Your task to perform on an android device: open app "Google Sheets" (install if not already installed) Image 0: 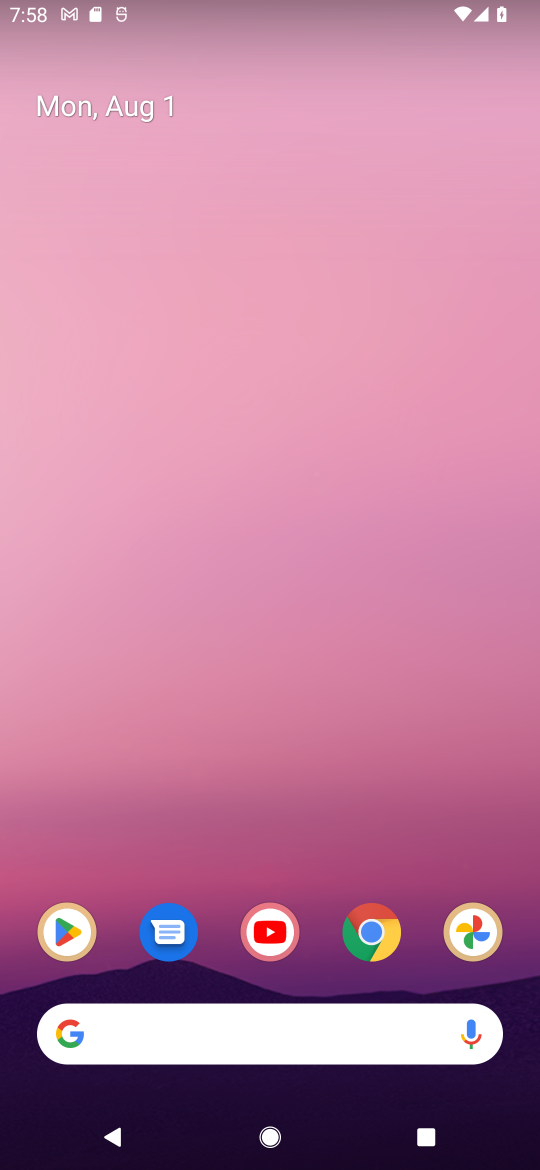
Step 0: click (45, 937)
Your task to perform on an android device: open app "Google Sheets" (install if not already installed) Image 1: 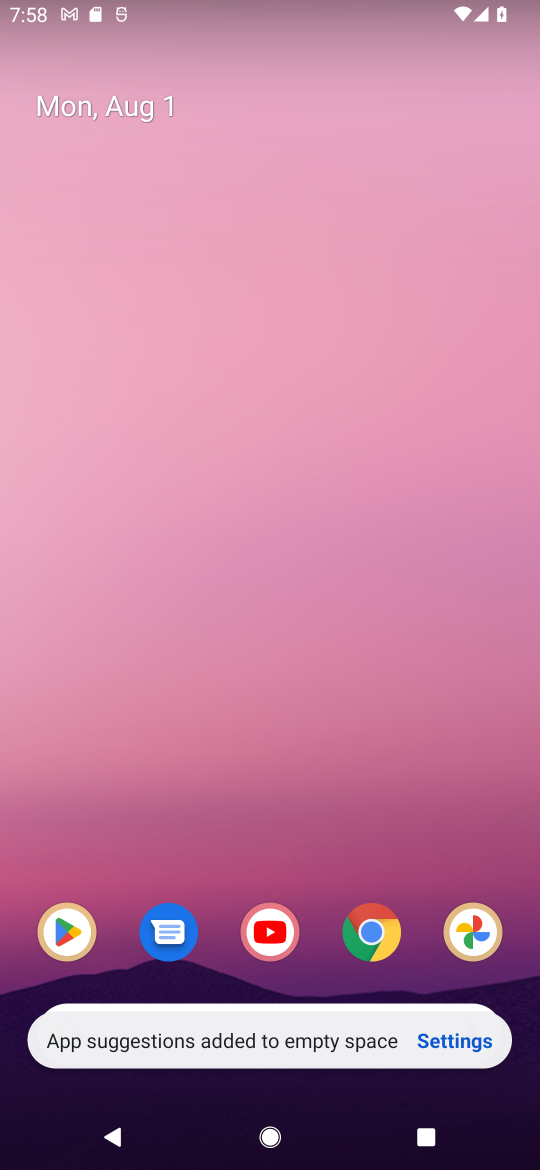
Step 1: click (78, 932)
Your task to perform on an android device: open app "Google Sheets" (install if not already installed) Image 2: 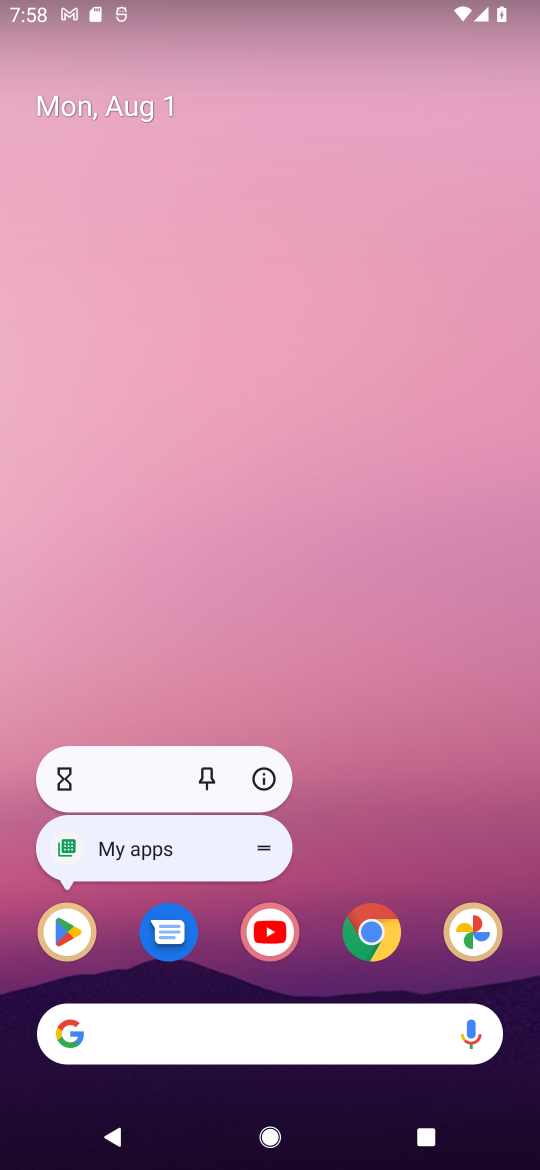
Step 2: click (93, 915)
Your task to perform on an android device: open app "Google Sheets" (install if not already installed) Image 3: 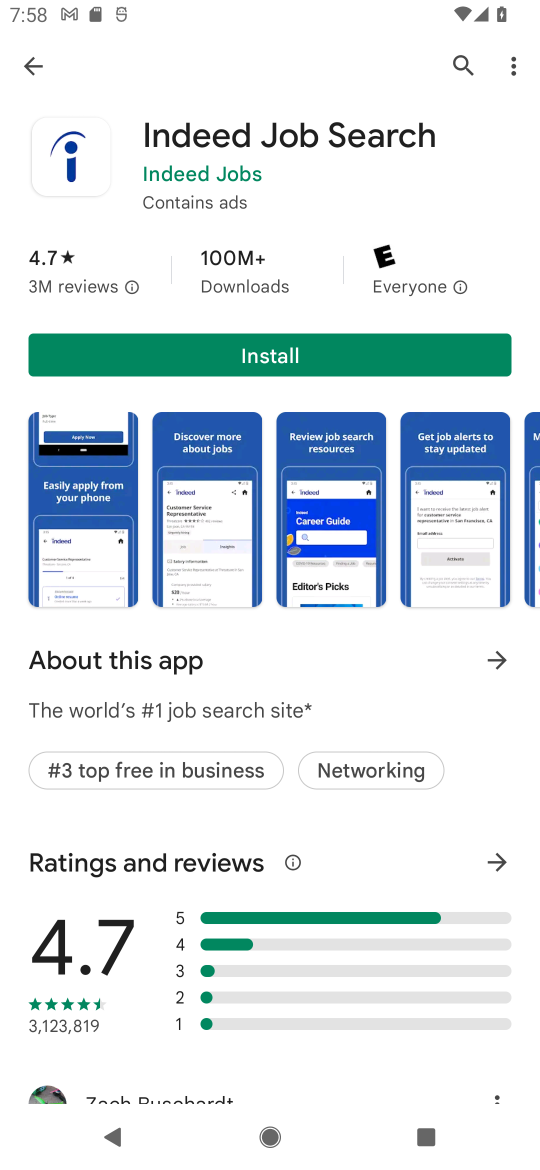
Step 3: click (41, 49)
Your task to perform on an android device: open app "Google Sheets" (install if not already installed) Image 4: 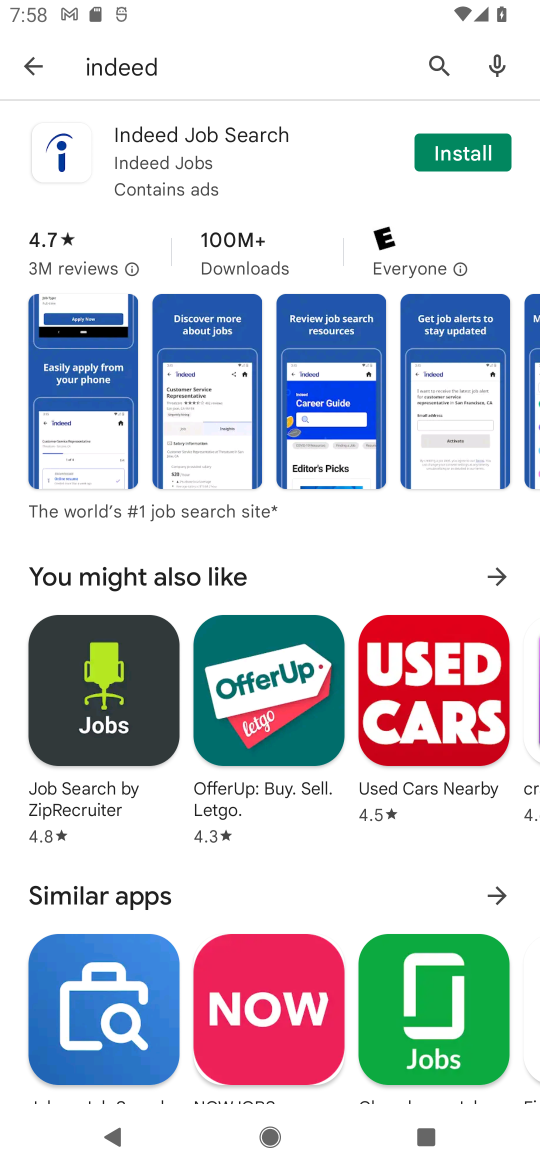
Step 4: click (112, 71)
Your task to perform on an android device: open app "Google Sheets" (install if not already installed) Image 5: 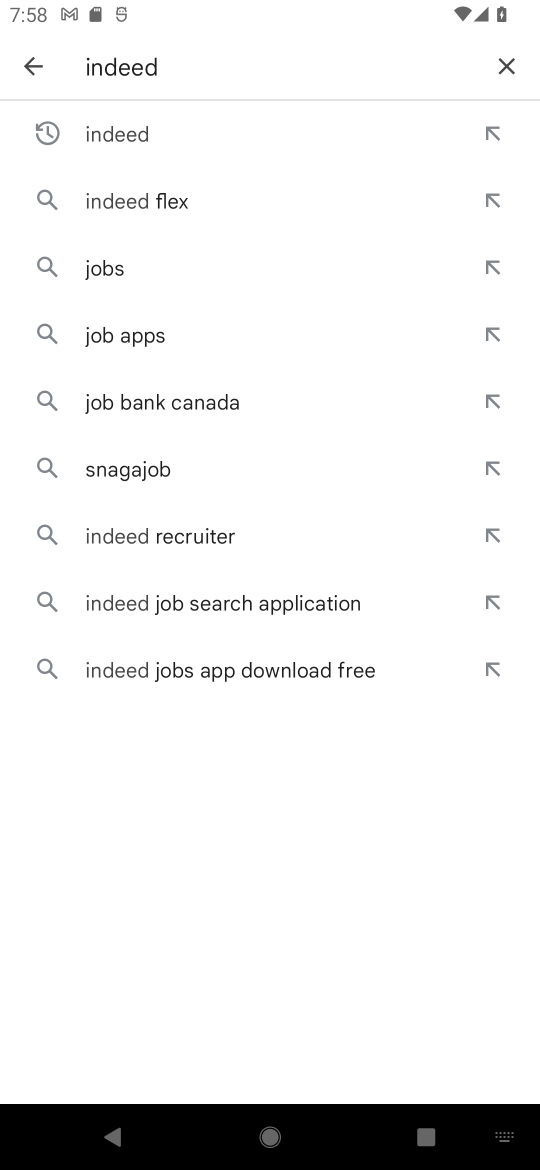
Step 5: click (509, 54)
Your task to perform on an android device: open app "Google Sheets" (install if not already installed) Image 6: 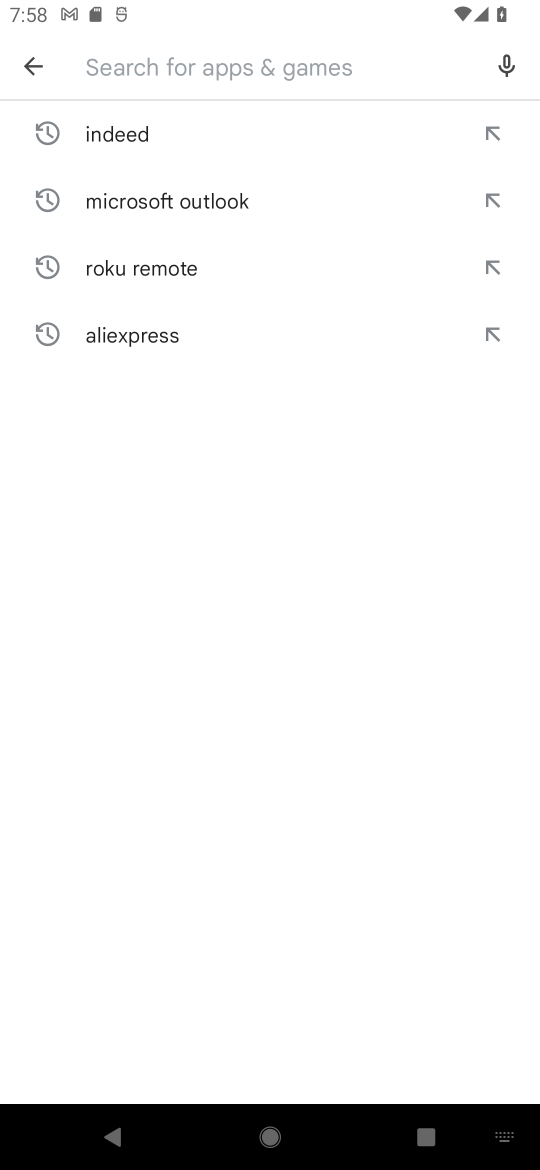
Step 6: type "google sheets"
Your task to perform on an android device: open app "Google Sheets" (install if not already installed) Image 7: 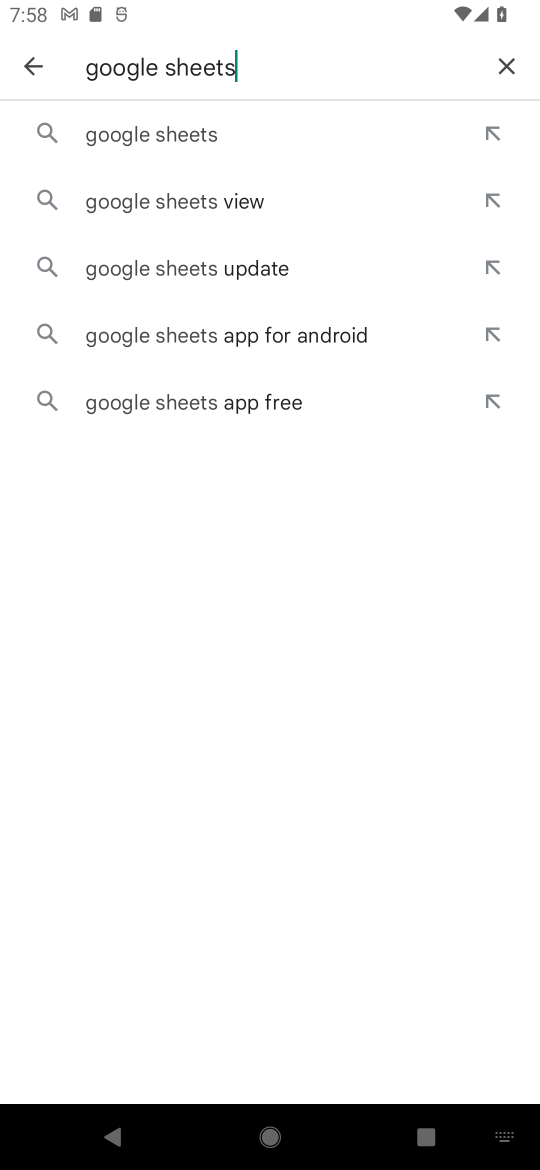
Step 7: click (172, 142)
Your task to perform on an android device: open app "Google Sheets" (install if not already installed) Image 8: 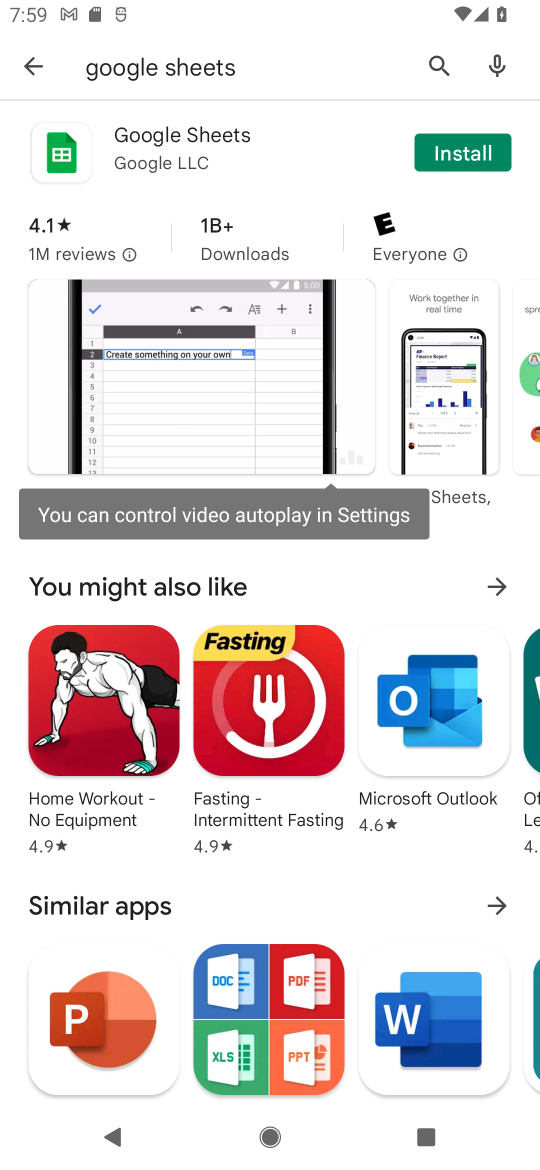
Step 8: click (465, 151)
Your task to perform on an android device: open app "Google Sheets" (install if not already installed) Image 9: 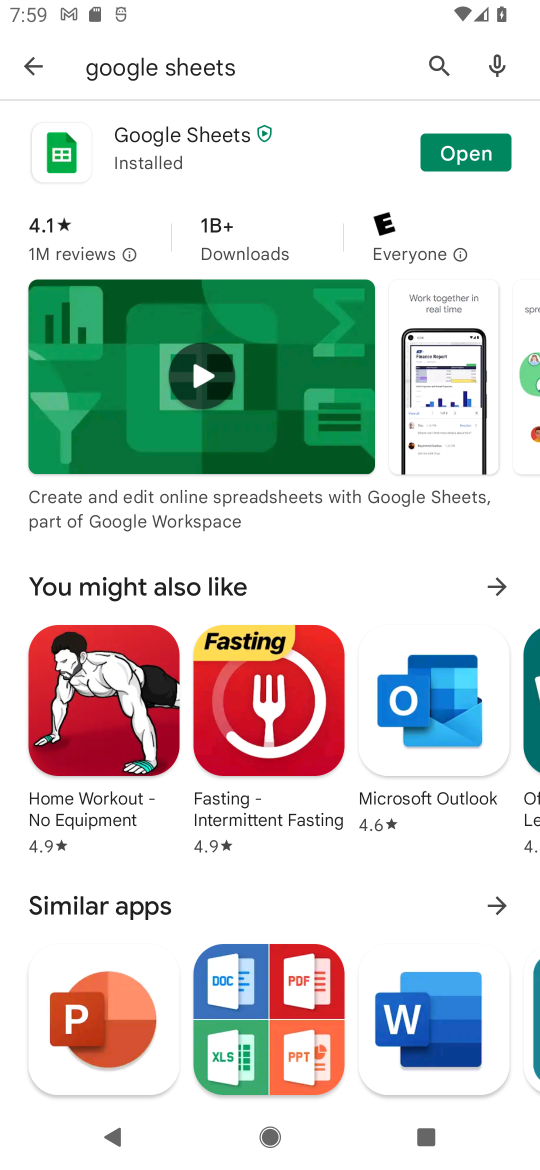
Step 9: click (456, 146)
Your task to perform on an android device: open app "Google Sheets" (install if not already installed) Image 10: 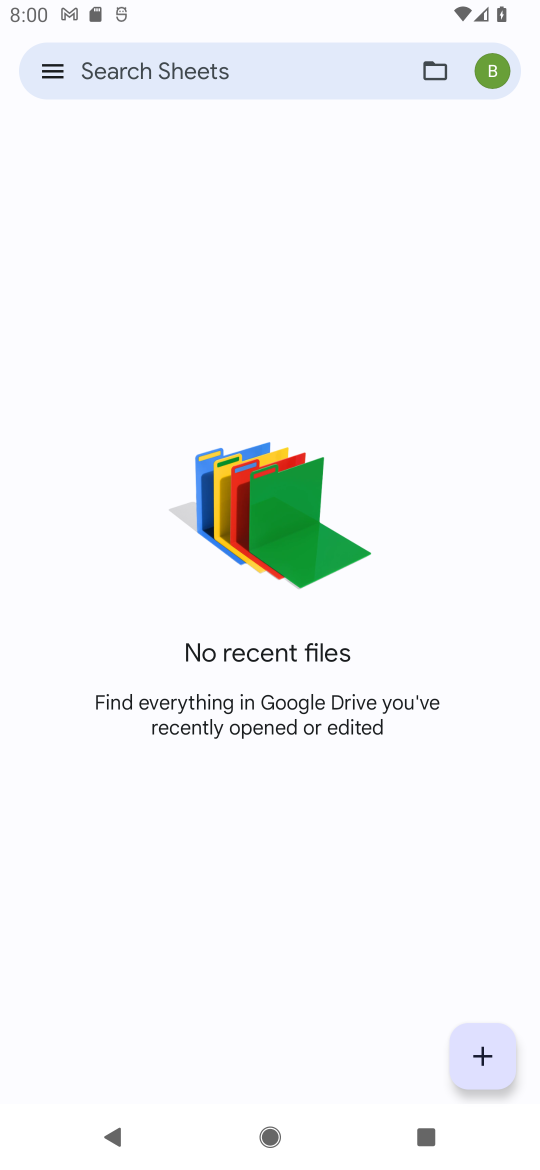
Step 10: task complete